Your task to perform on an android device: toggle sleep mode Image 0: 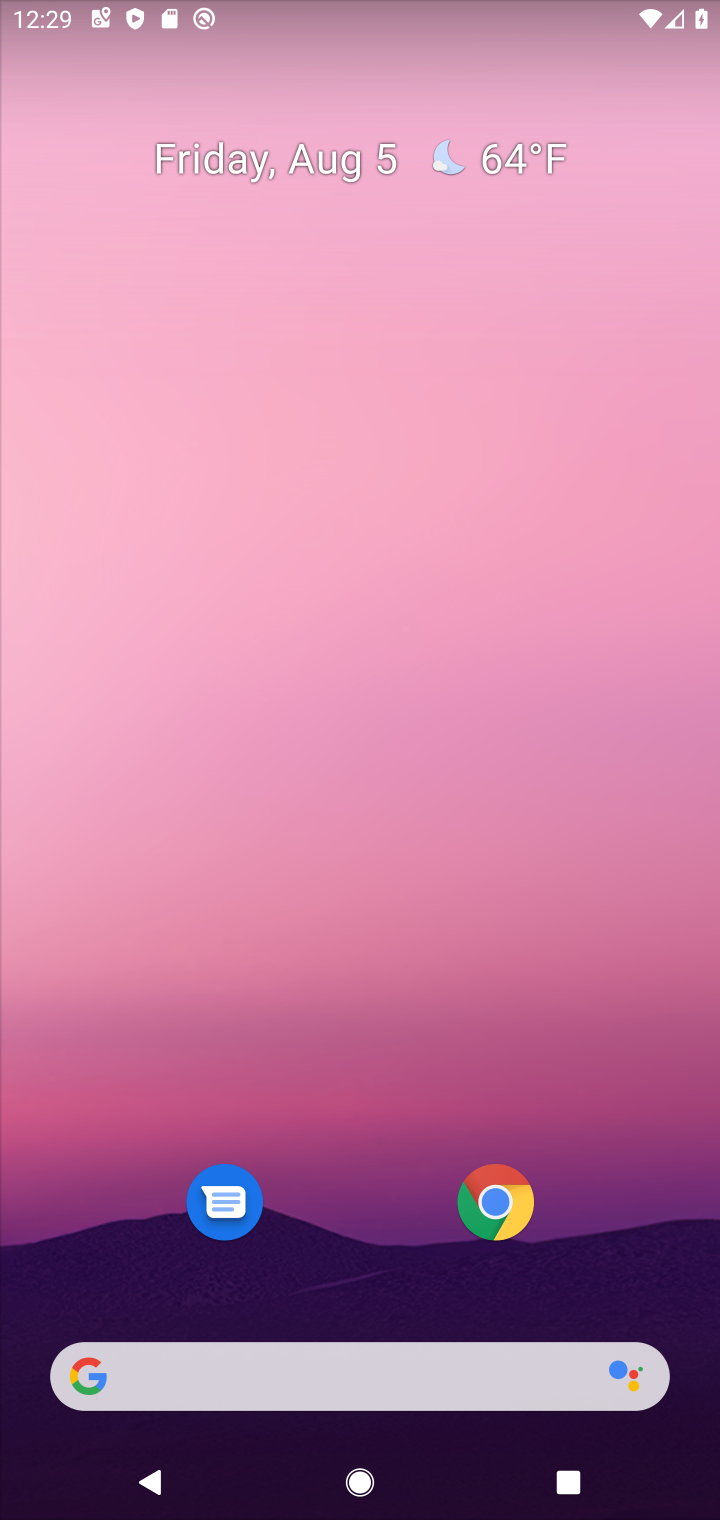
Step 0: drag from (320, 1307) to (482, 142)
Your task to perform on an android device: toggle sleep mode Image 1: 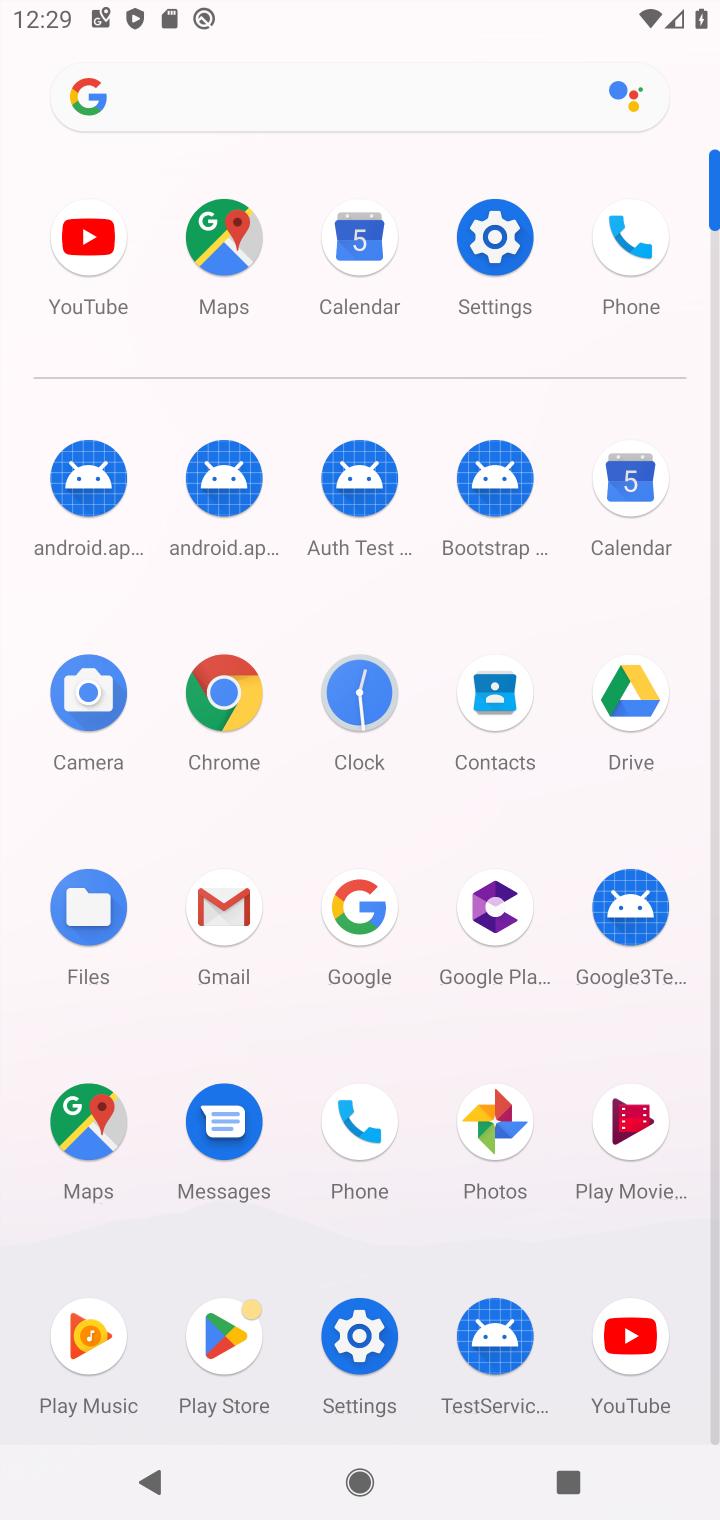
Step 1: click (494, 246)
Your task to perform on an android device: toggle sleep mode Image 2: 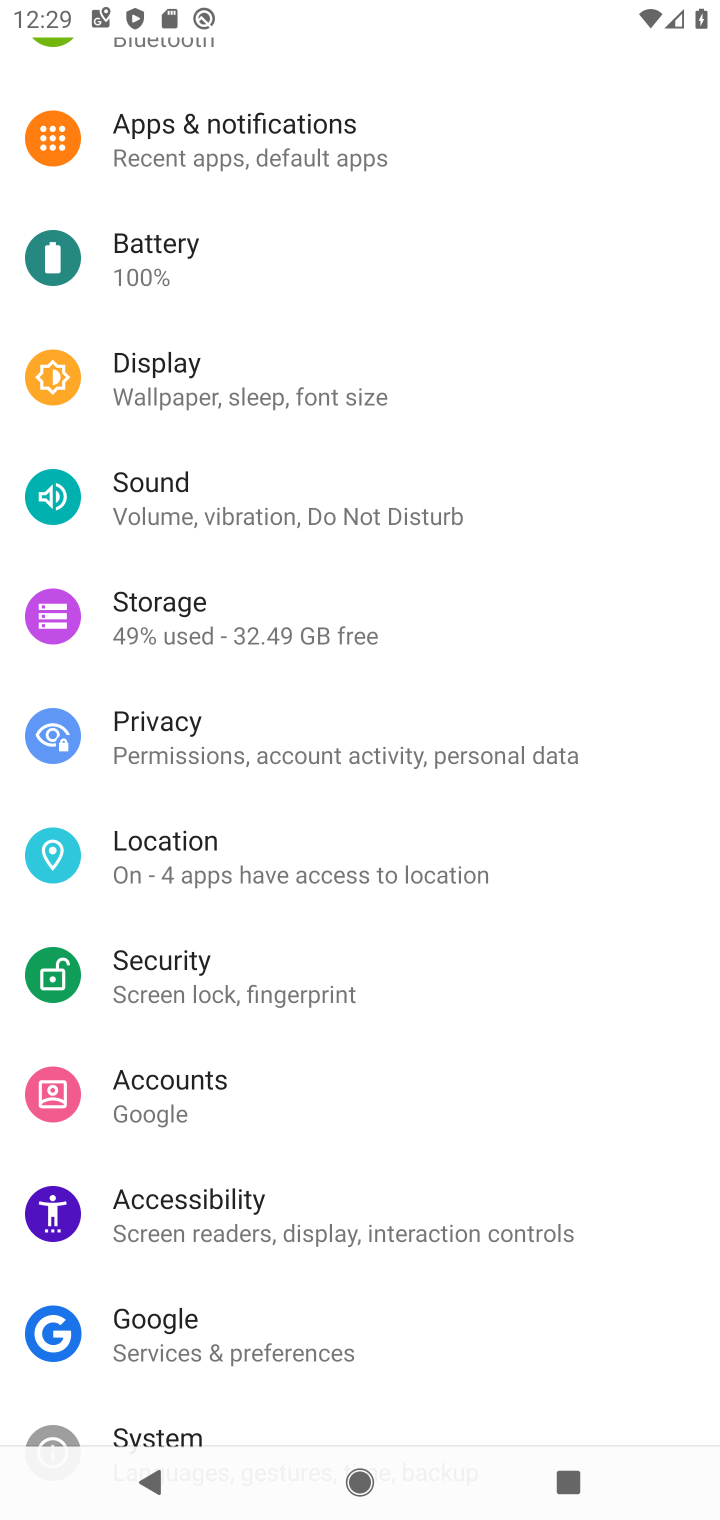
Step 2: drag from (440, 439) to (606, 1478)
Your task to perform on an android device: toggle sleep mode Image 3: 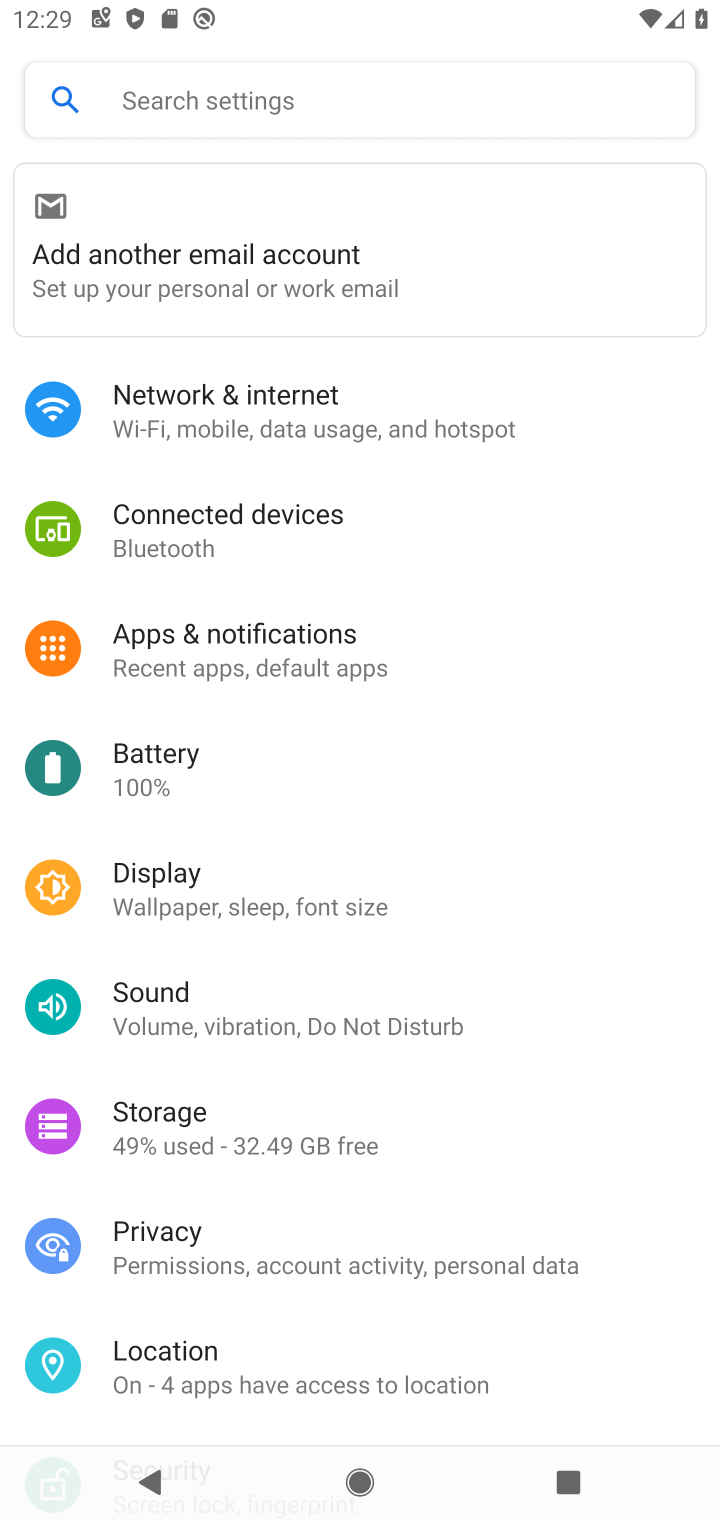
Step 3: click (298, 120)
Your task to perform on an android device: toggle sleep mode Image 4: 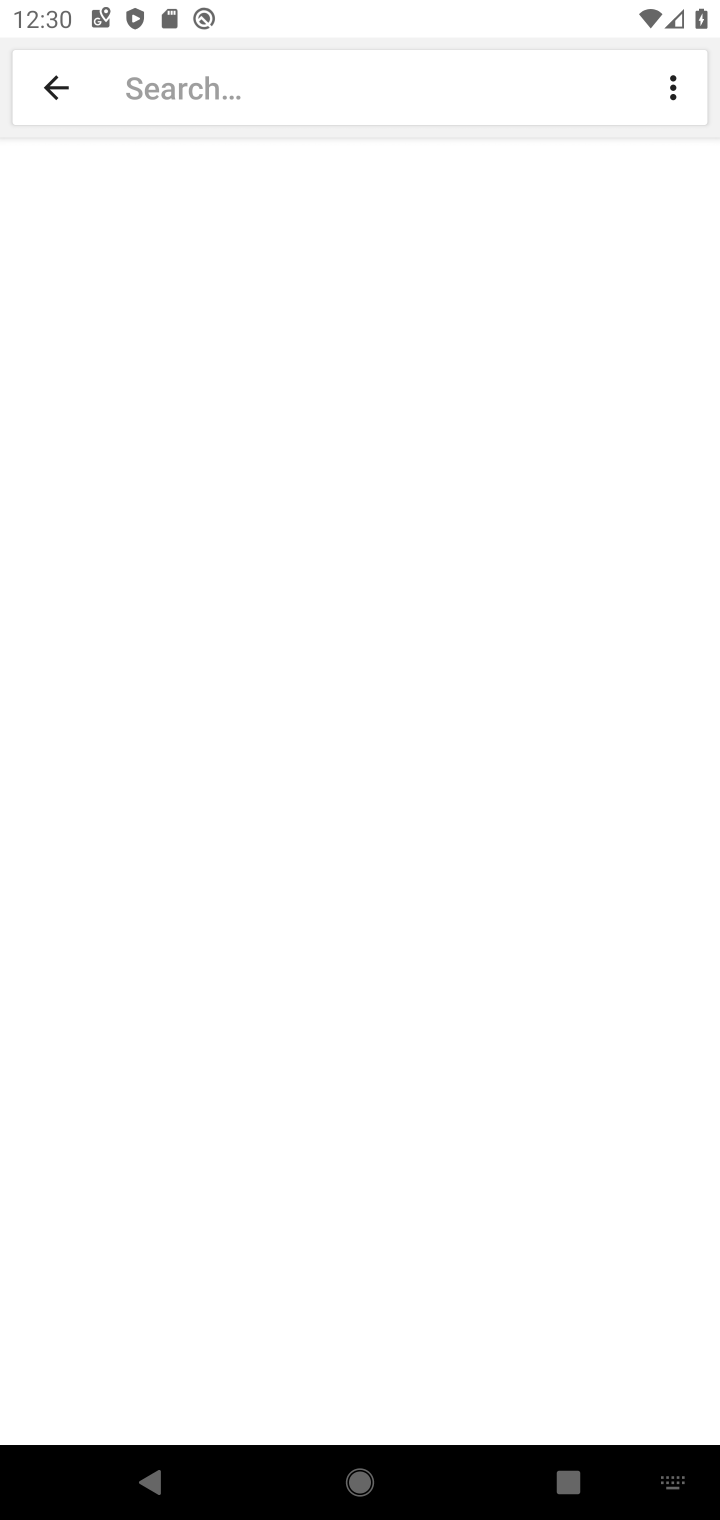
Step 4: type "sleep "
Your task to perform on an android device: toggle sleep mode Image 5: 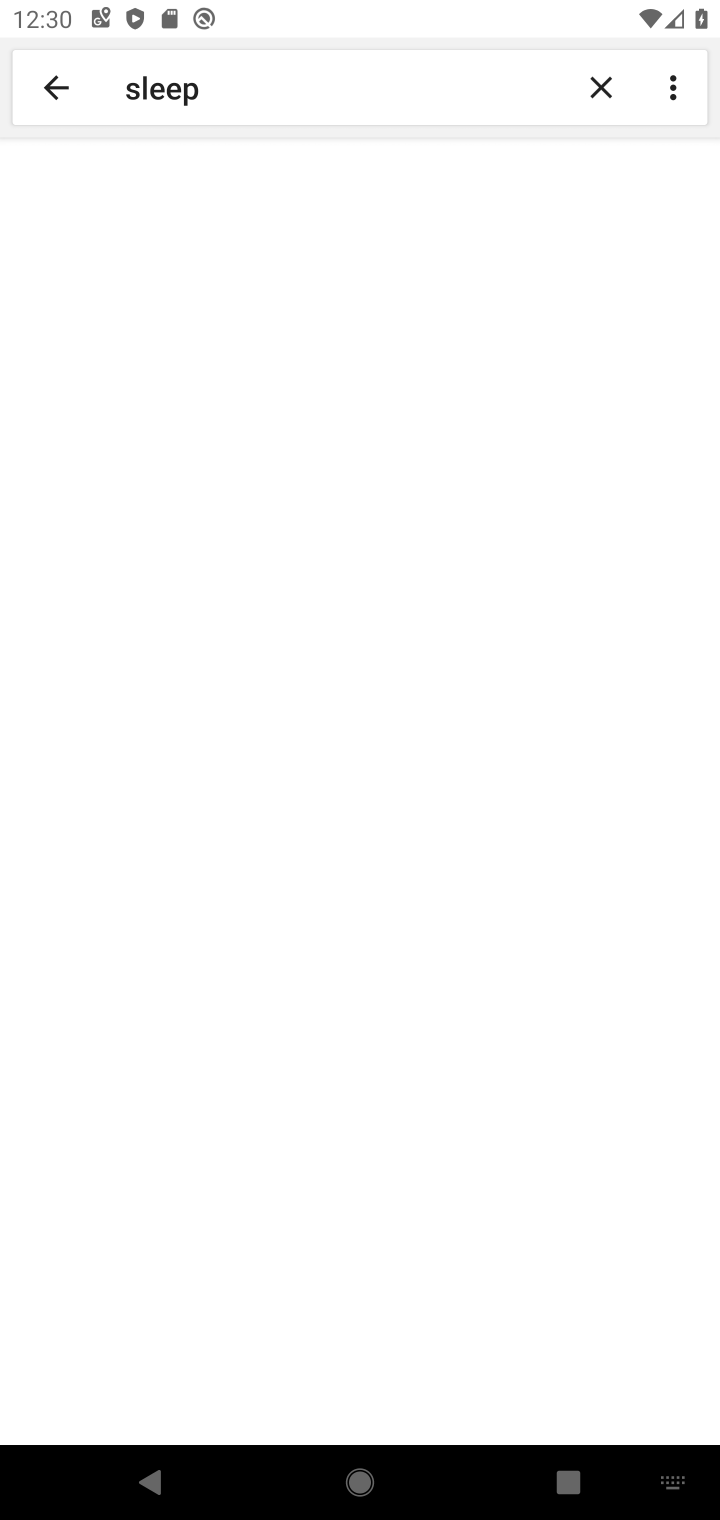
Step 5: click (273, 97)
Your task to perform on an android device: toggle sleep mode Image 6: 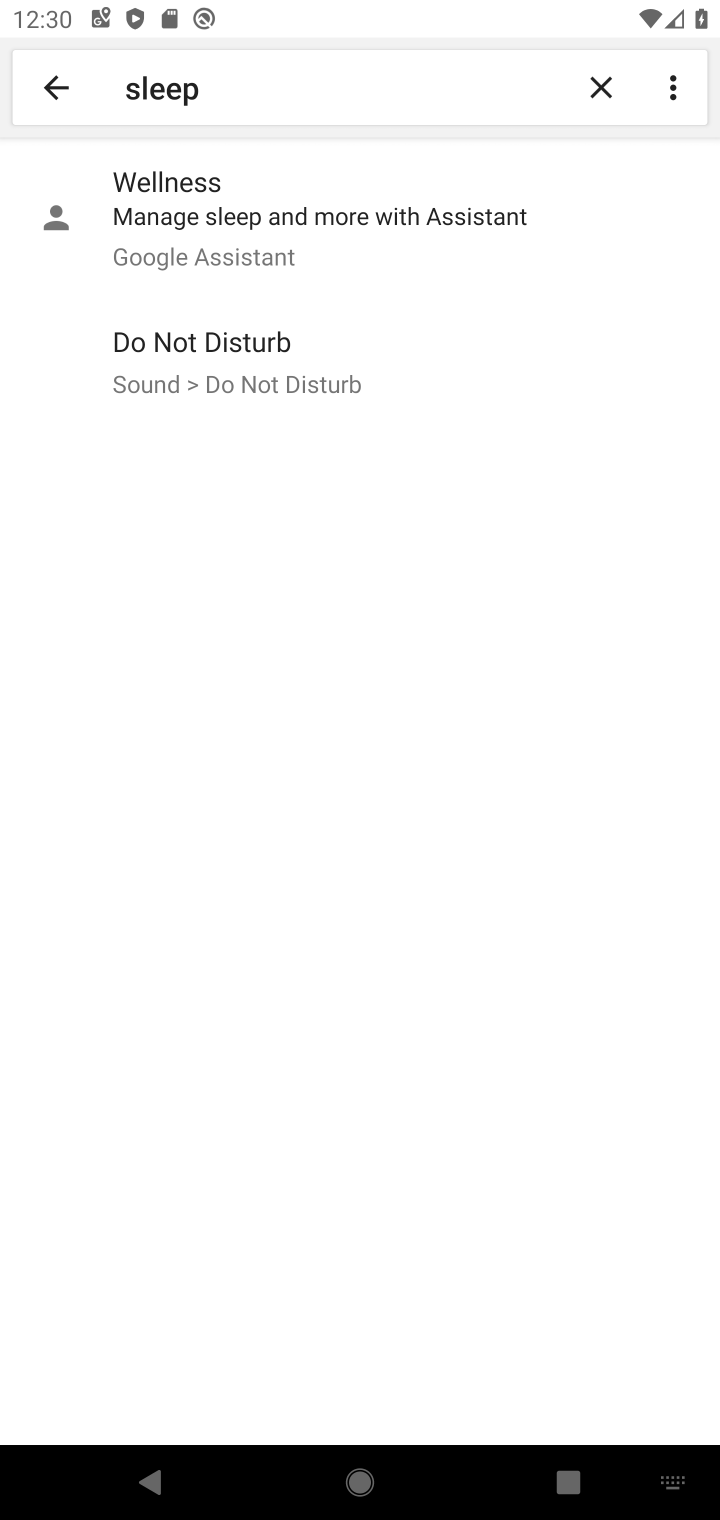
Step 6: type "mode"
Your task to perform on an android device: toggle sleep mode Image 7: 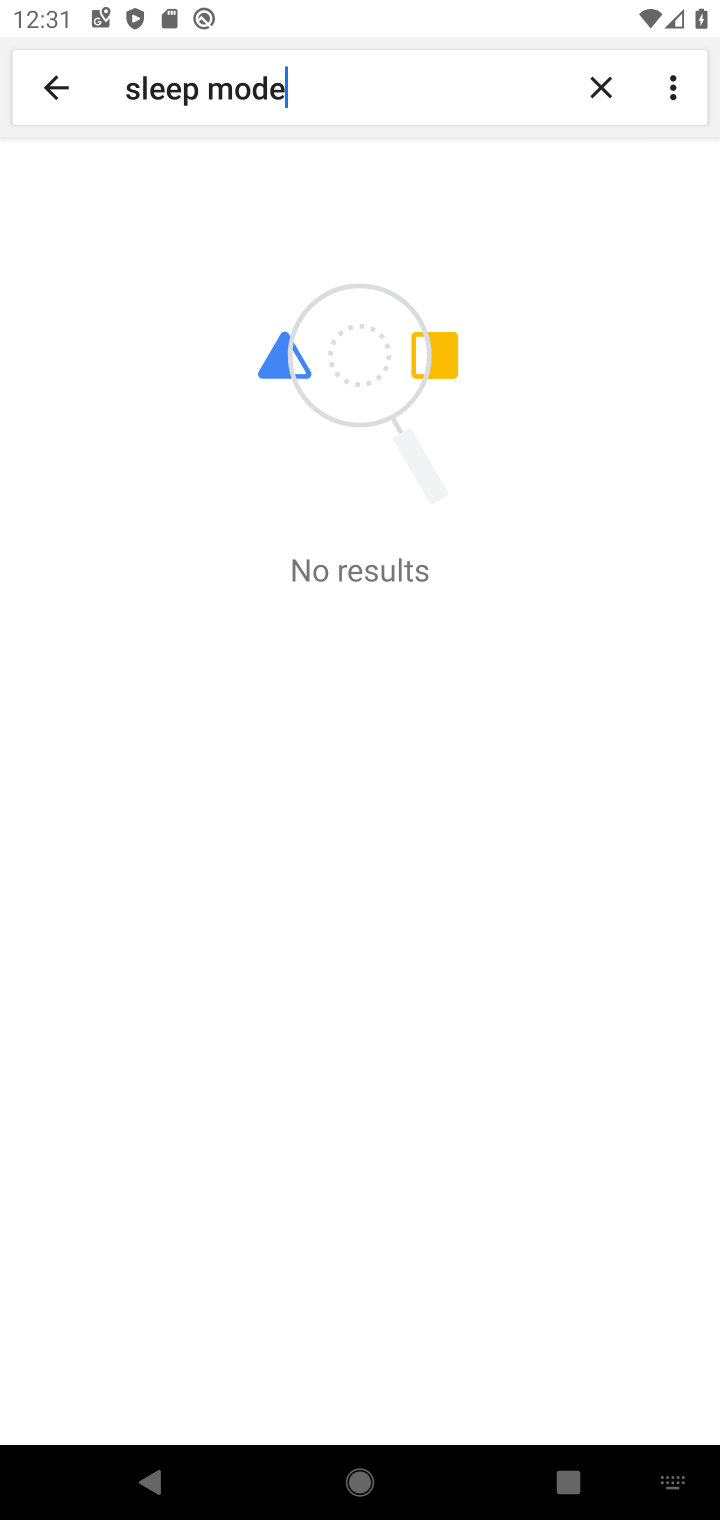
Step 7: task complete